Your task to perform on an android device: read, delete, or share a saved page in the chrome app Image 0: 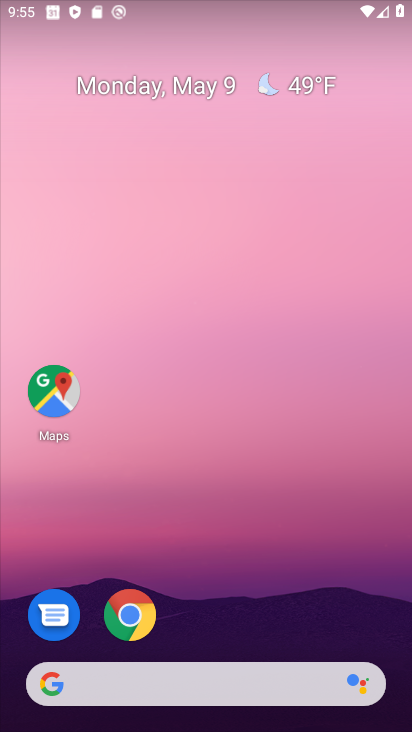
Step 0: click (143, 619)
Your task to perform on an android device: read, delete, or share a saved page in the chrome app Image 1: 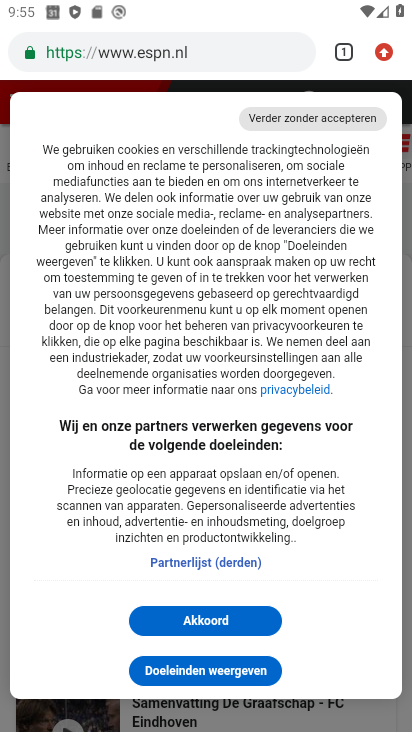
Step 1: task complete